Your task to perform on an android device: turn on showing notifications on the lock screen Image 0: 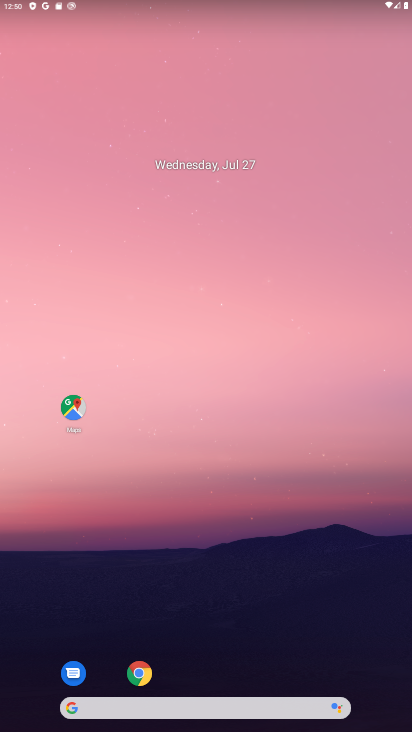
Step 0: drag from (255, 679) to (258, 39)
Your task to perform on an android device: turn on showing notifications on the lock screen Image 1: 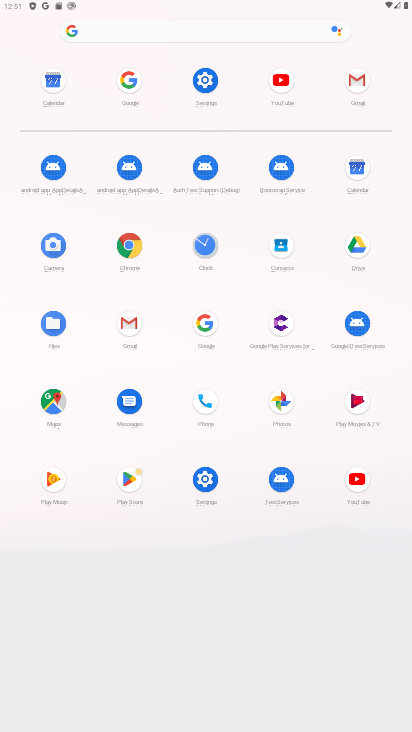
Step 1: click (213, 72)
Your task to perform on an android device: turn on showing notifications on the lock screen Image 2: 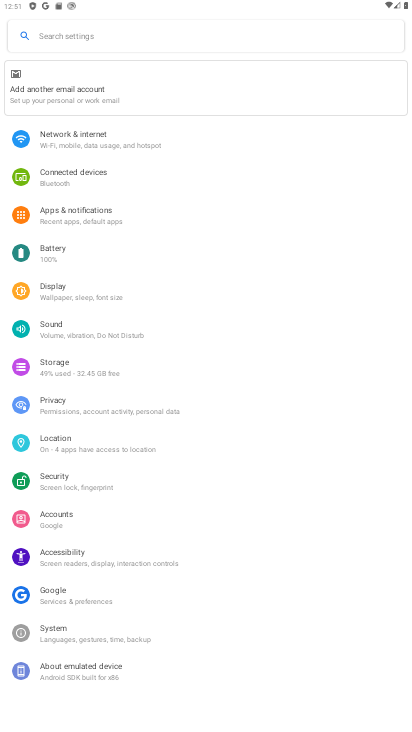
Step 2: click (51, 221)
Your task to perform on an android device: turn on showing notifications on the lock screen Image 3: 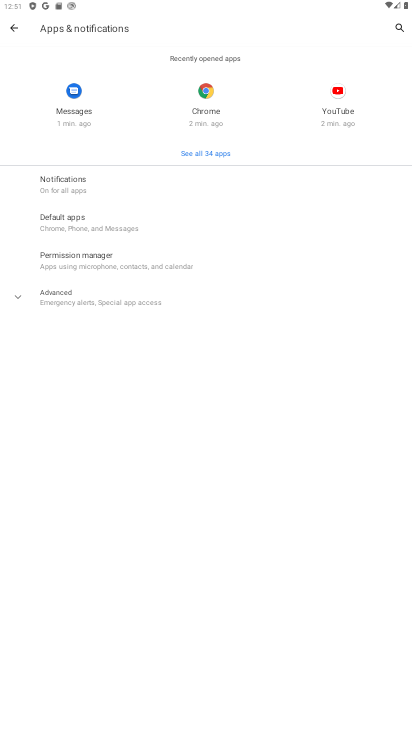
Step 3: click (48, 187)
Your task to perform on an android device: turn on showing notifications on the lock screen Image 4: 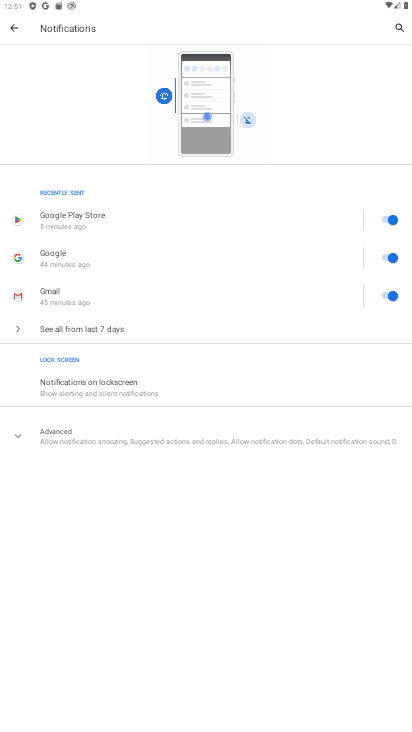
Step 4: click (56, 390)
Your task to perform on an android device: turn on showing notifications on the lock screen Image 5: 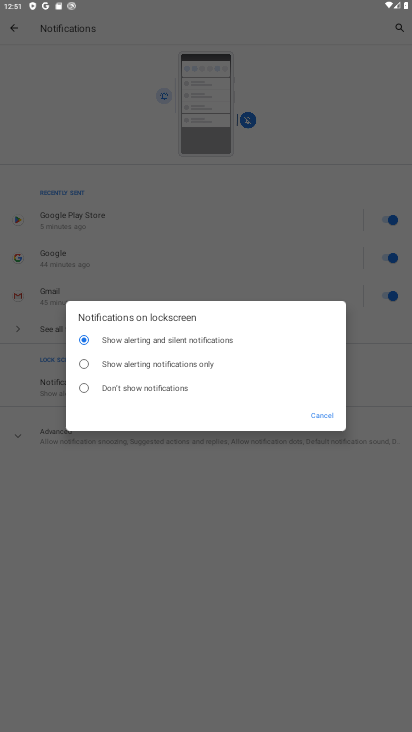
Step 5: task complete